Your task to perform on an android device: toggle airplane mode Image 0: 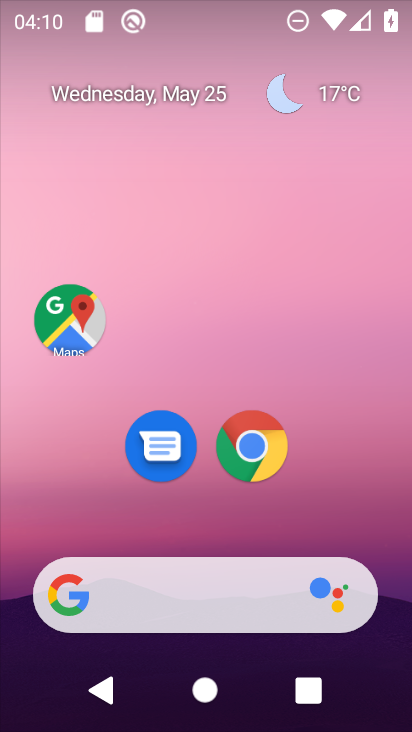
Step 0: drag from (241, 601) to (233, 68)
Your task to perform on an android device: toggle airplane mode Image 1: 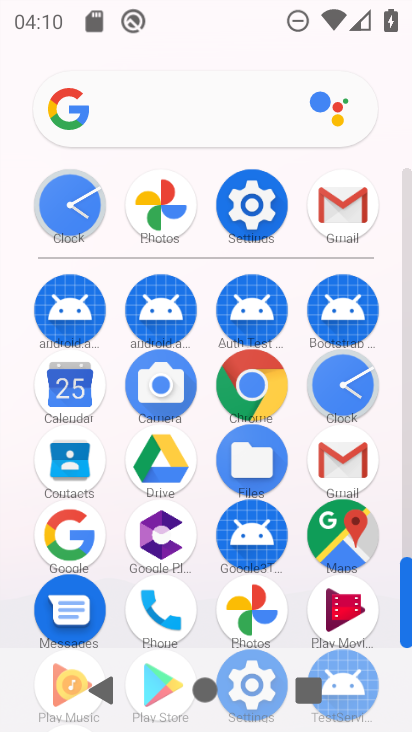
Step 1: click (254, 205)
Your task to perform on an android device: toggle airplane mode Image 2: 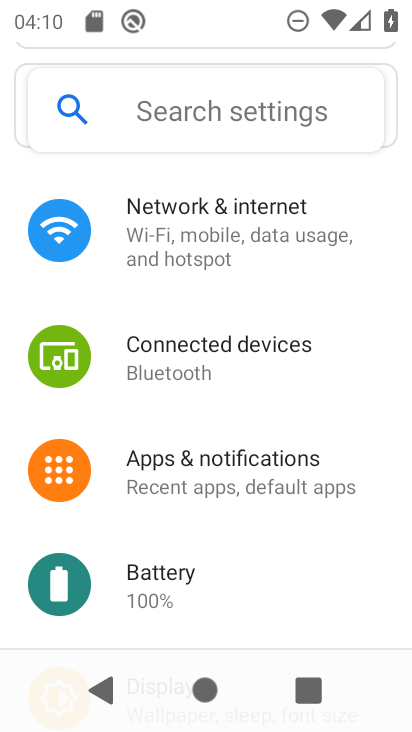
Step 2: click (238, 237)
Your task to perform on an android device: toggle airplane mode Image 3: 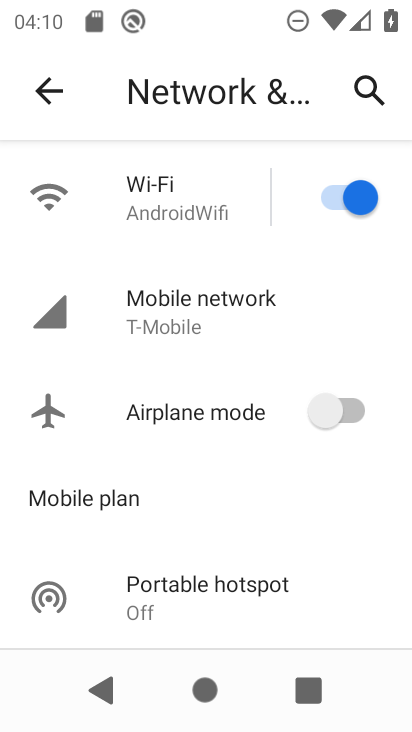
Step 3: click (347, 417)
Your task to perform on an android device: toggle airplane mode Image 4: 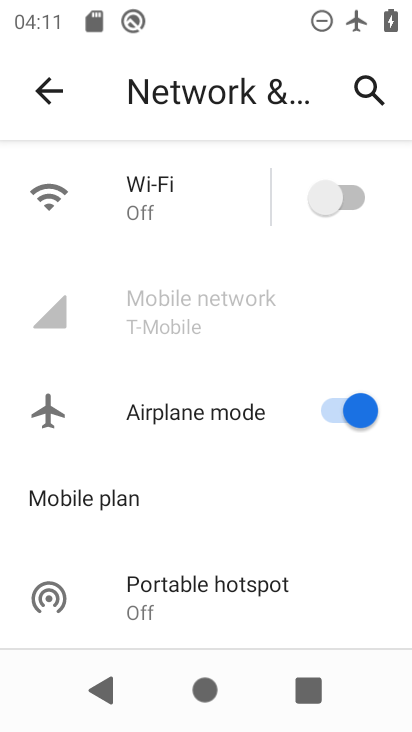
Step 4: task complete